Your task to perform on an android device: Play the last video I watched on Youtube Image 0: 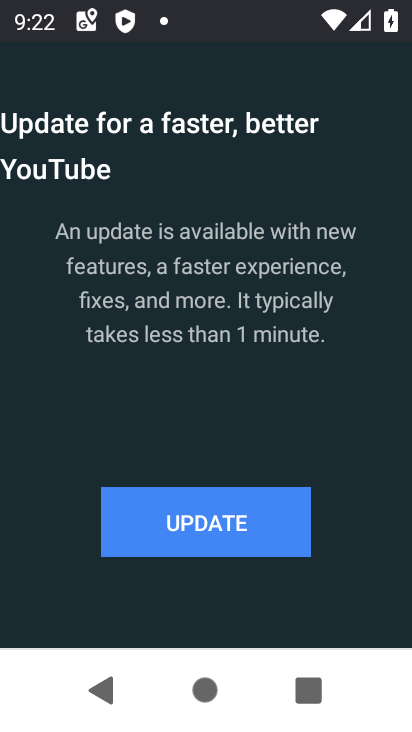
Step 0: click (250, 516)
Your task to perform on an android device: Play the last video I watched on Youtube Image 1: 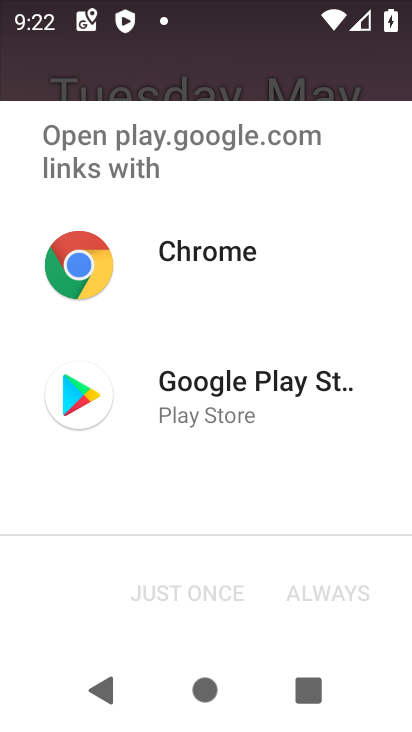
Step 1: click (178, 417)
Your task to perform on an android device: Play the last video I watched on Youtube Image 2: 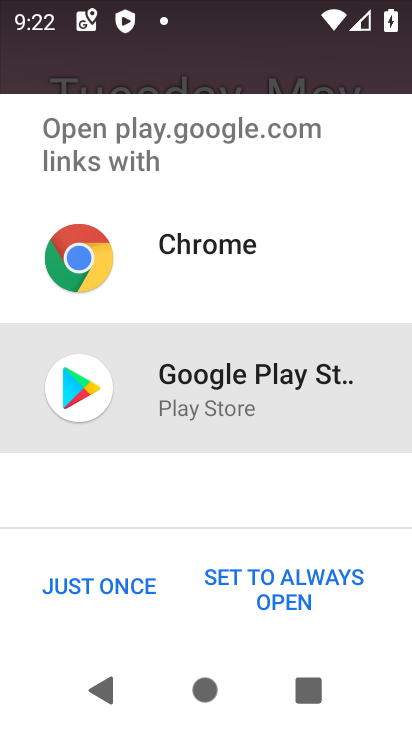
Step 2: click (126, 591)
Your task to perform on an android device: Play the last video I watched on Youtube Image 3: 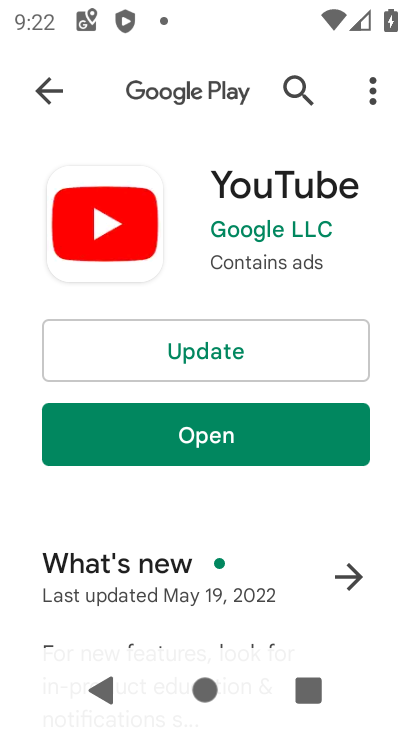
Step 3: click (175, 368)
Your task to perform on an android device: Play the last video I watched on Youtube Image 4: 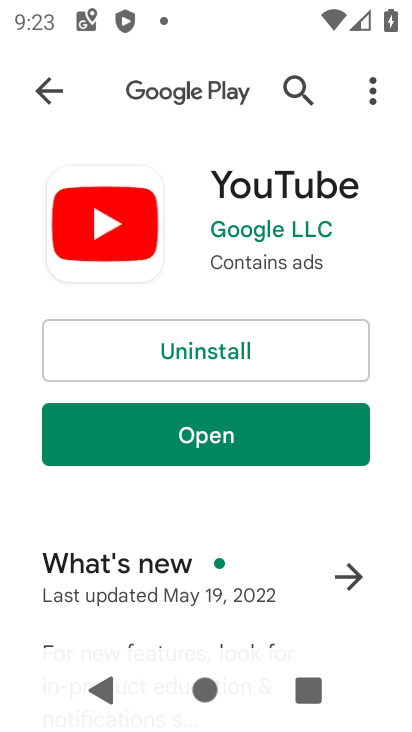
Step 4: click (212, 418)
Your task to perform on an android device: Play the last video I watched on Youtube Image 5: 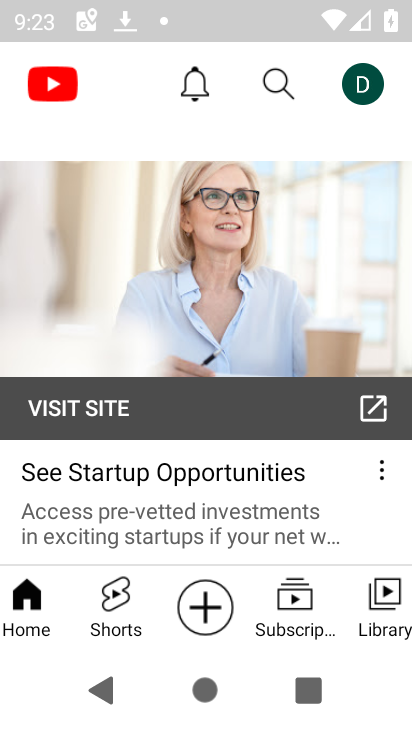
Step 5: drag from (200, 485) to (174, 111)
Your task to perform on an android device: Play the last video I watched on Youtube Image 6: 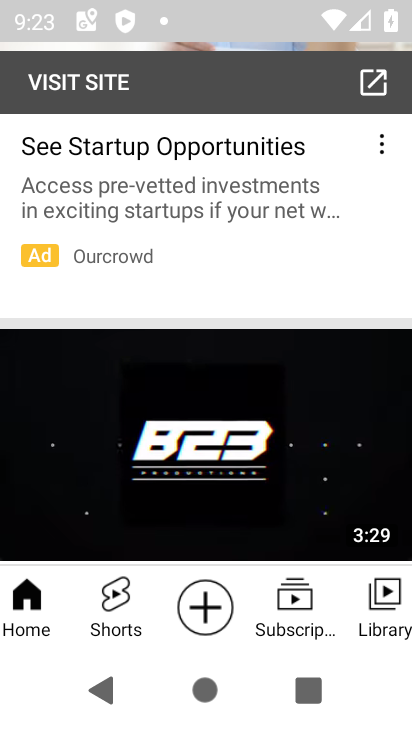
Step 6: click (377, 591)
Your task to perform on an android device: Play the last video I watched on Youtube Image 7: 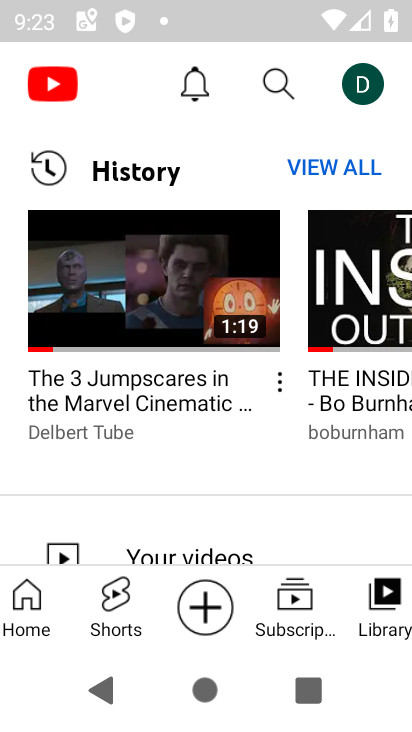
Step 7: click (163, 301)
Your task to perform on an android device: Play the last video I watched on Youtube Image 8: 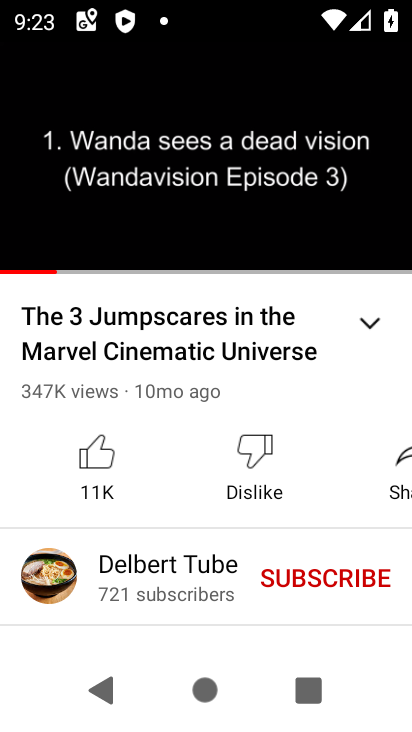
Step 8: task complete